Your task to perform on an android device: turn off location history Image 0: 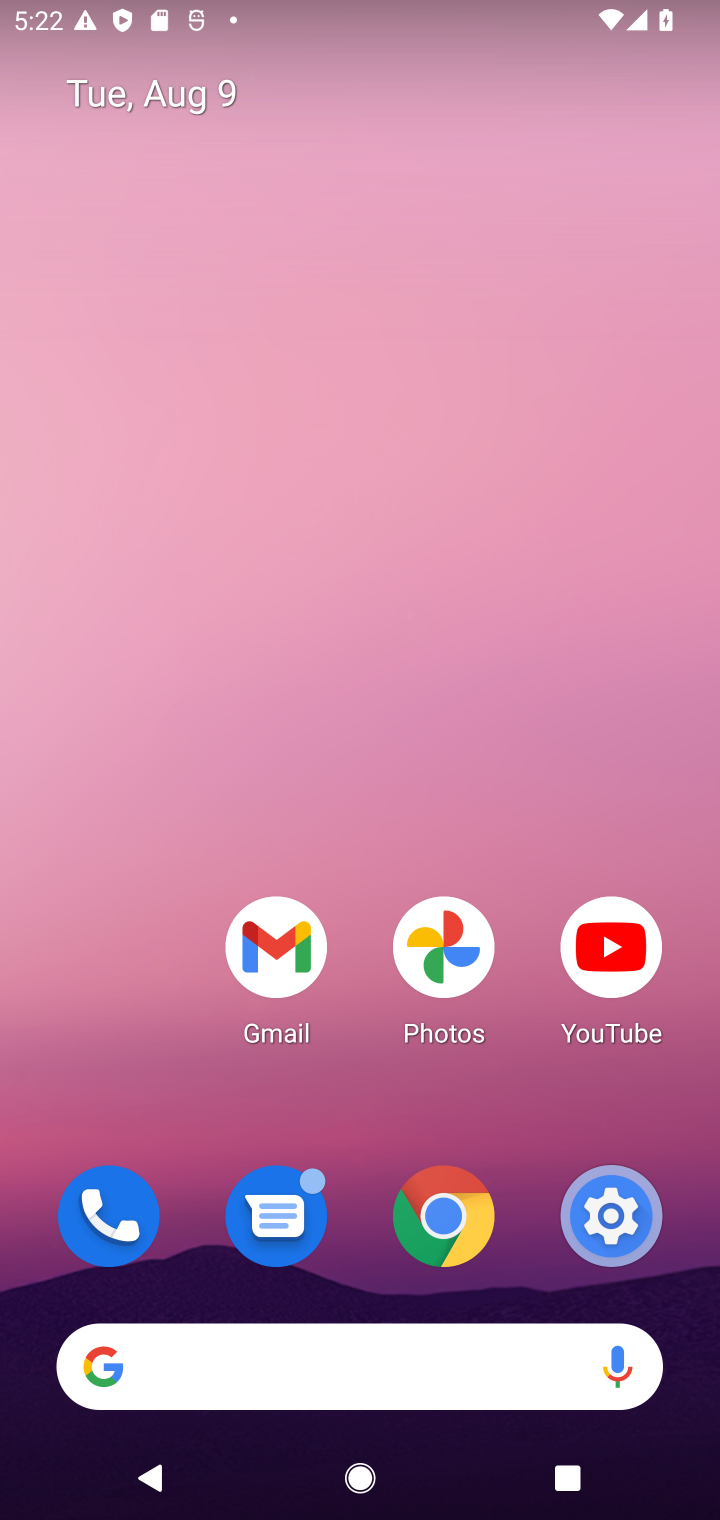
Step 0: click (616, 1233)
Your task to perform on an android device: turn off location history Image 1: 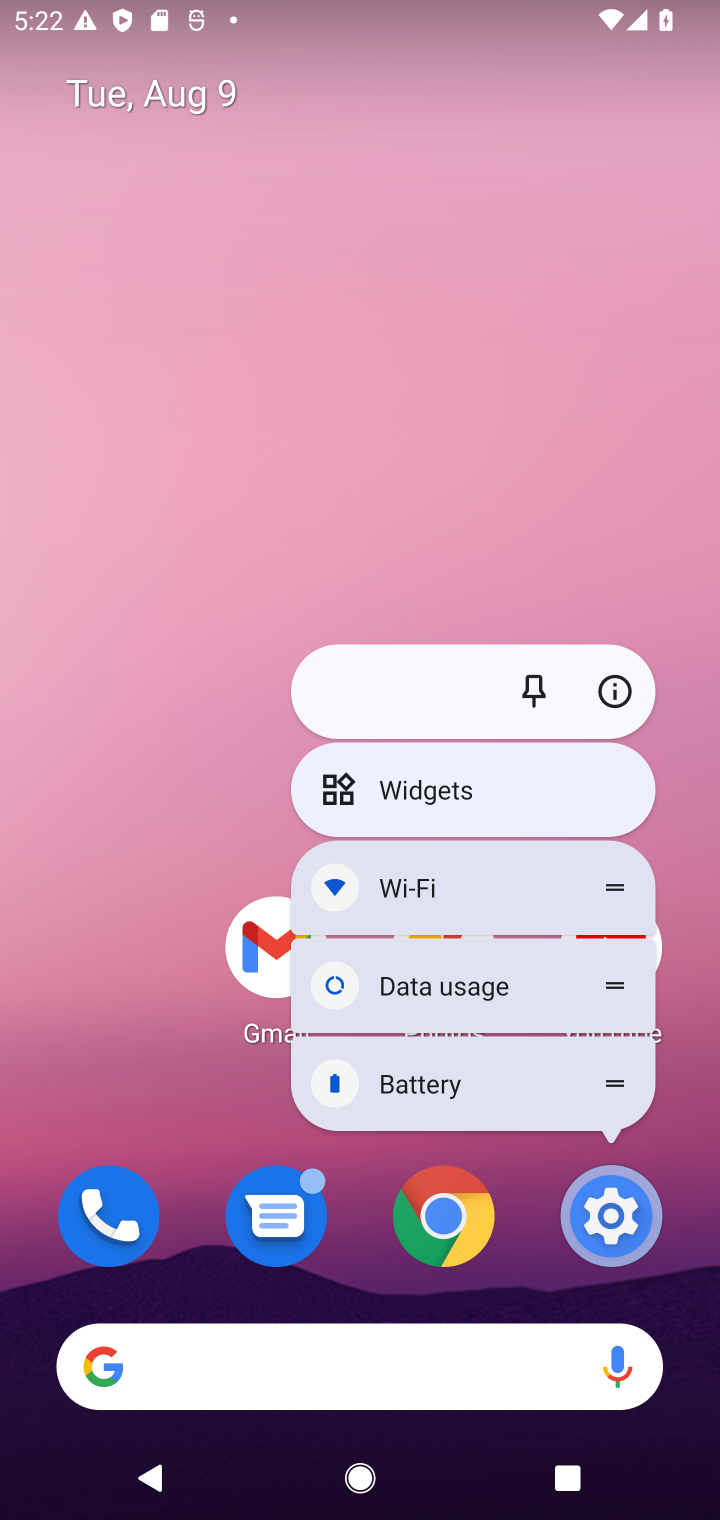
Step 1: click (616, 1233)
Your task to perform on an android device: turn off location history Image 2: 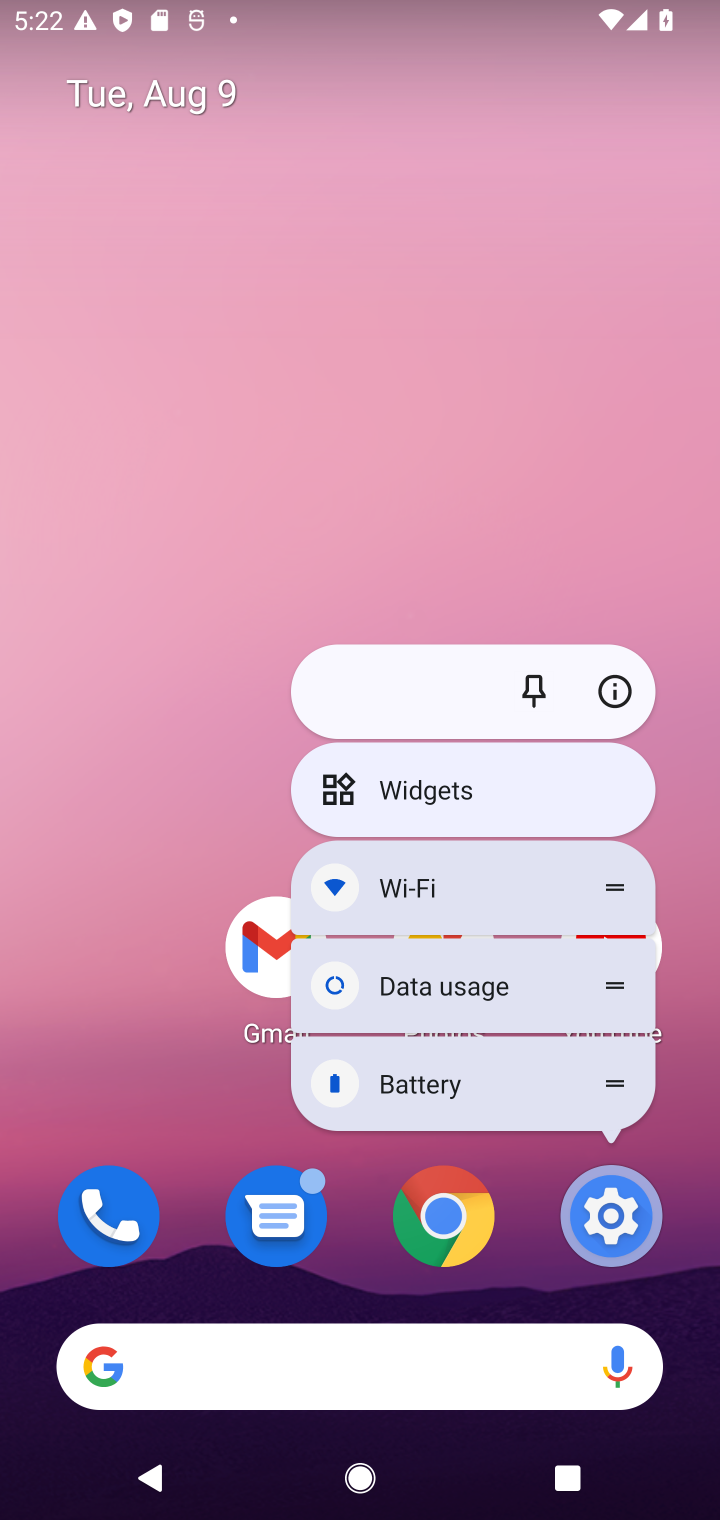
Step 2: click (594, 1220)
Your task to perform on an android device: turn off location history Image 3: 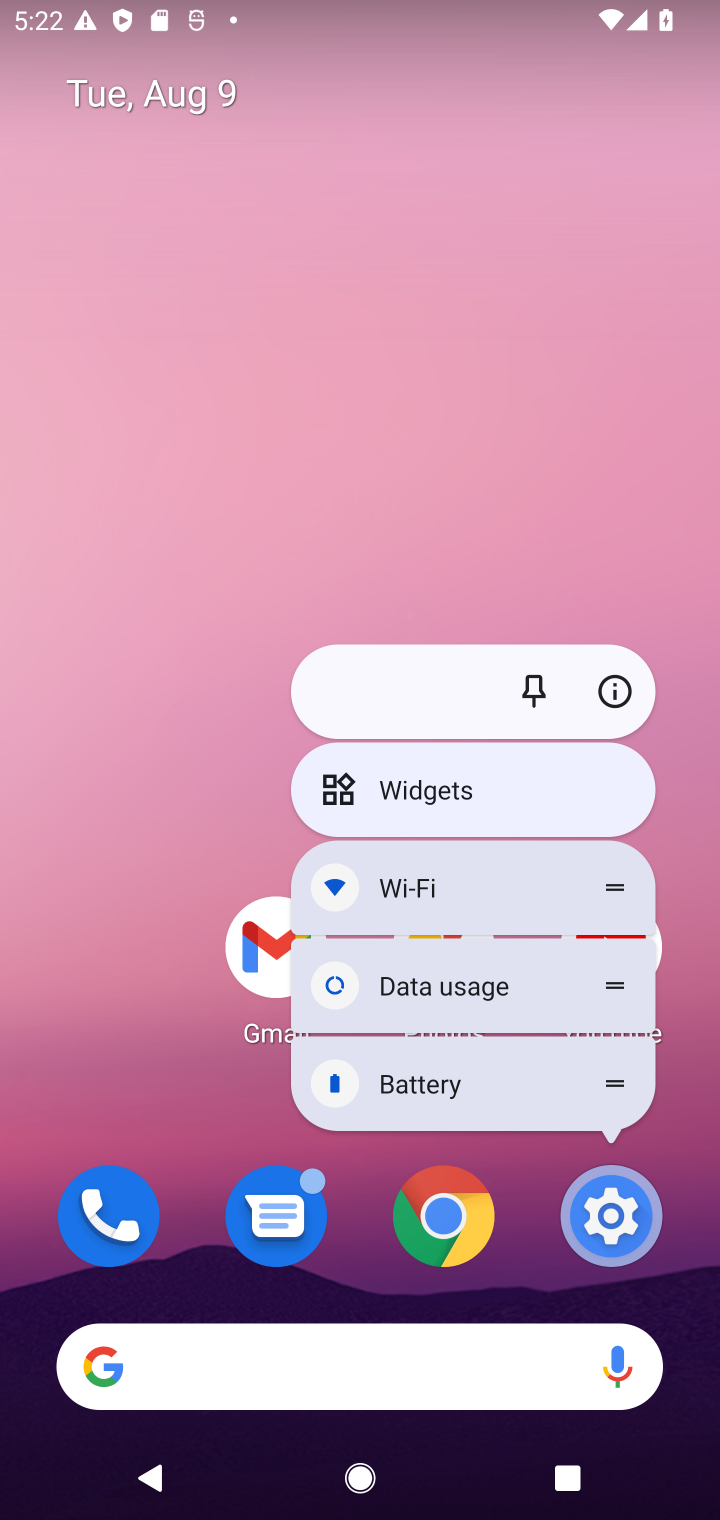
Step 3: click (624, 1219)
Your task to perform on an android device: turn off location history Image 4: 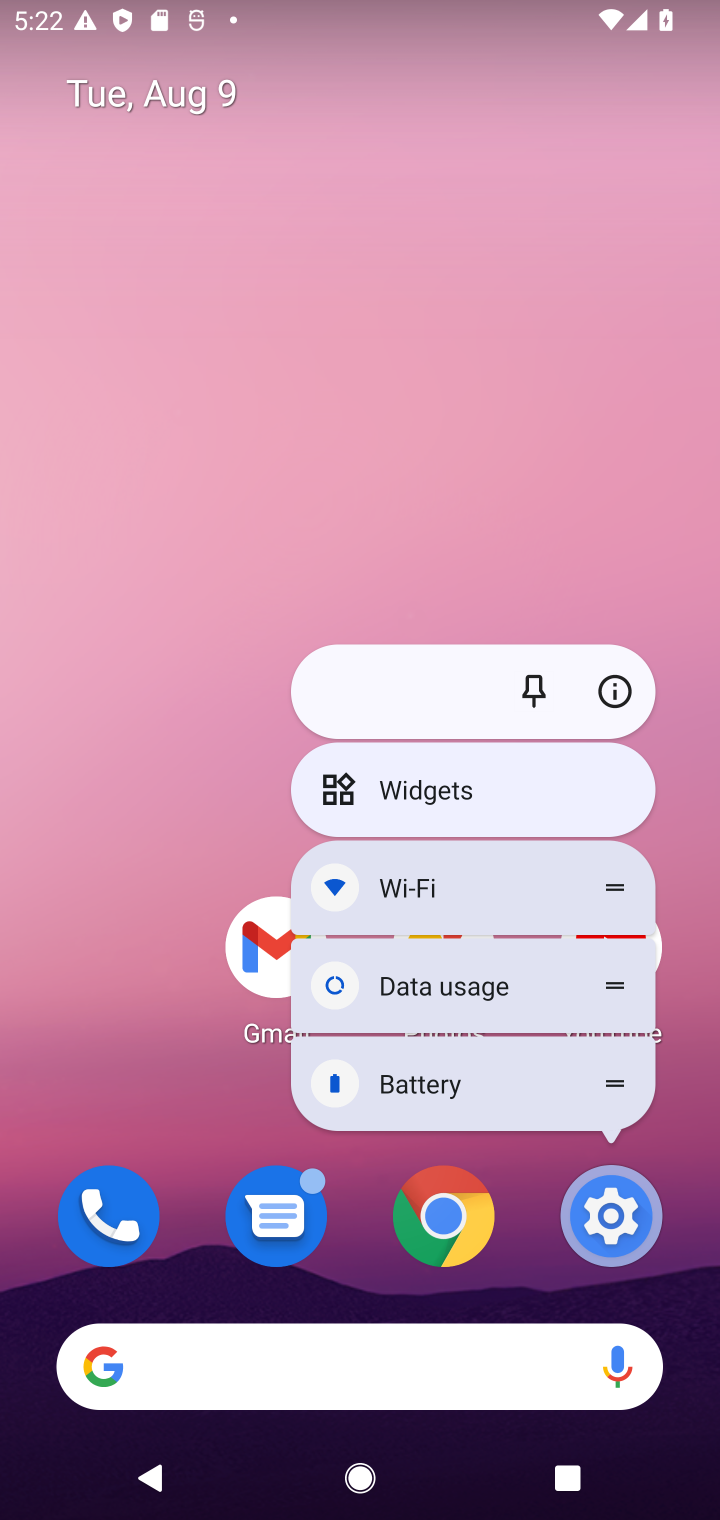
Step 4: click (637, 1241)
Your task to perform on an android device: turn off location history Image 5: 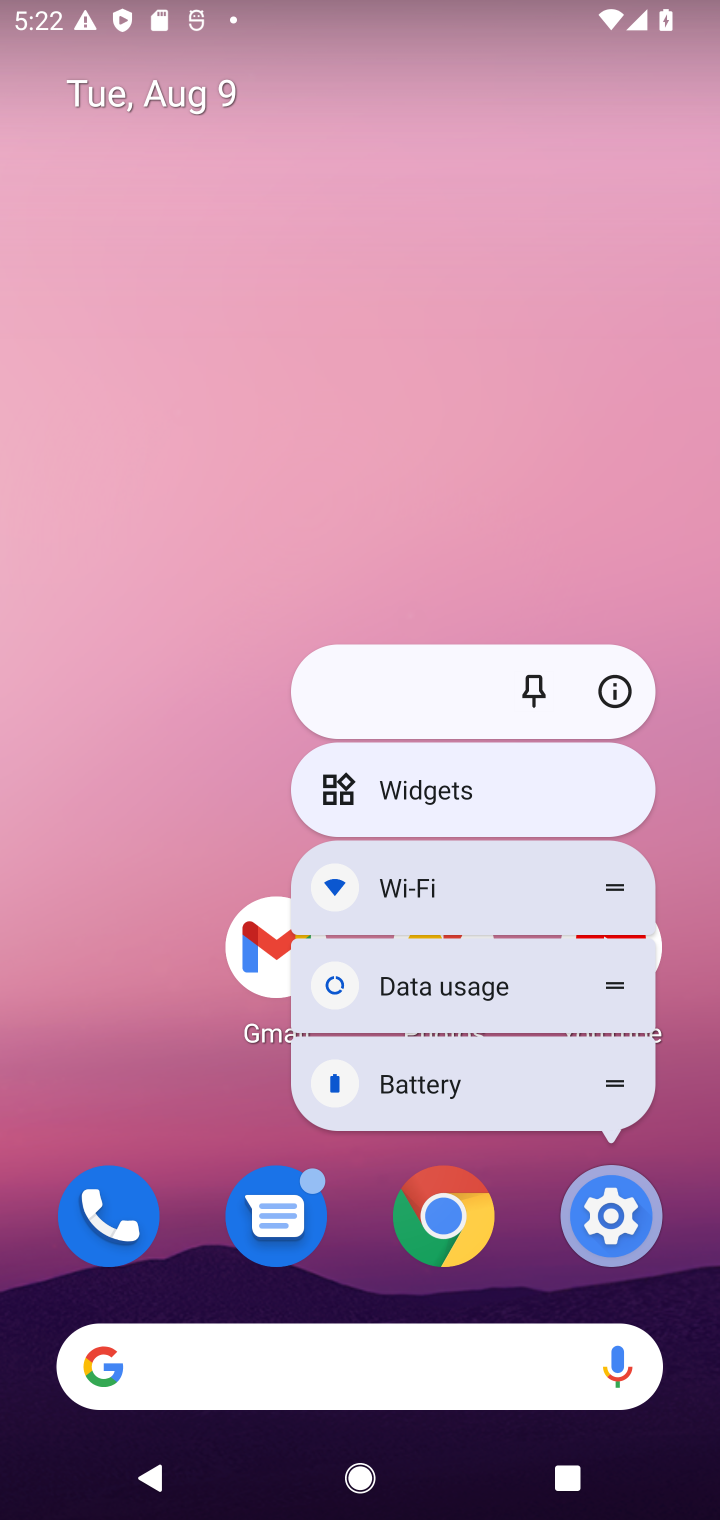
Step 5: click (619, 1224)
Your task to perform on an android device: turn off location history Image 6: 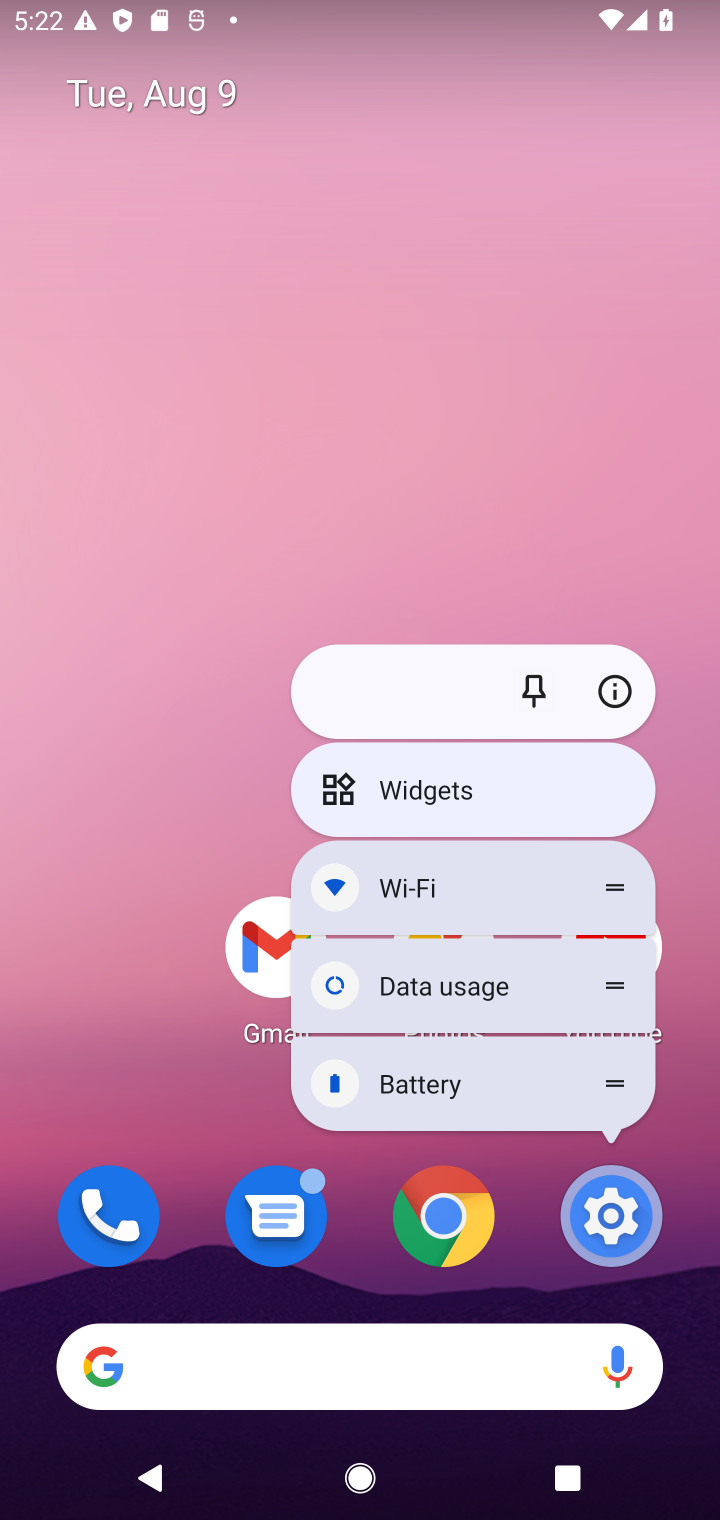
Step 6: click (589, 1194)
Your task to perform on an android device: turn off location history Image 7: 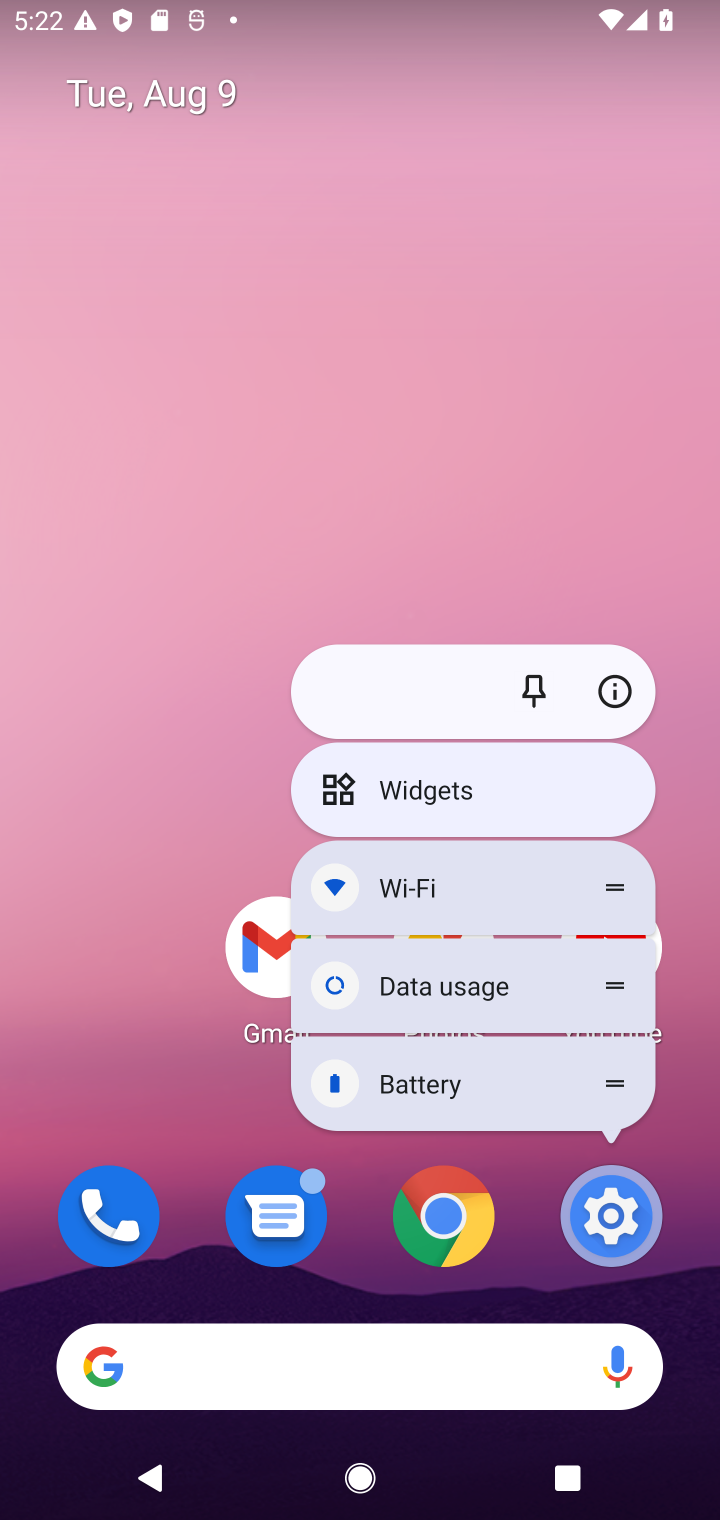
Step 7: click (596, 1203)
Your task to perform on an android device: turn off location history Image 8: 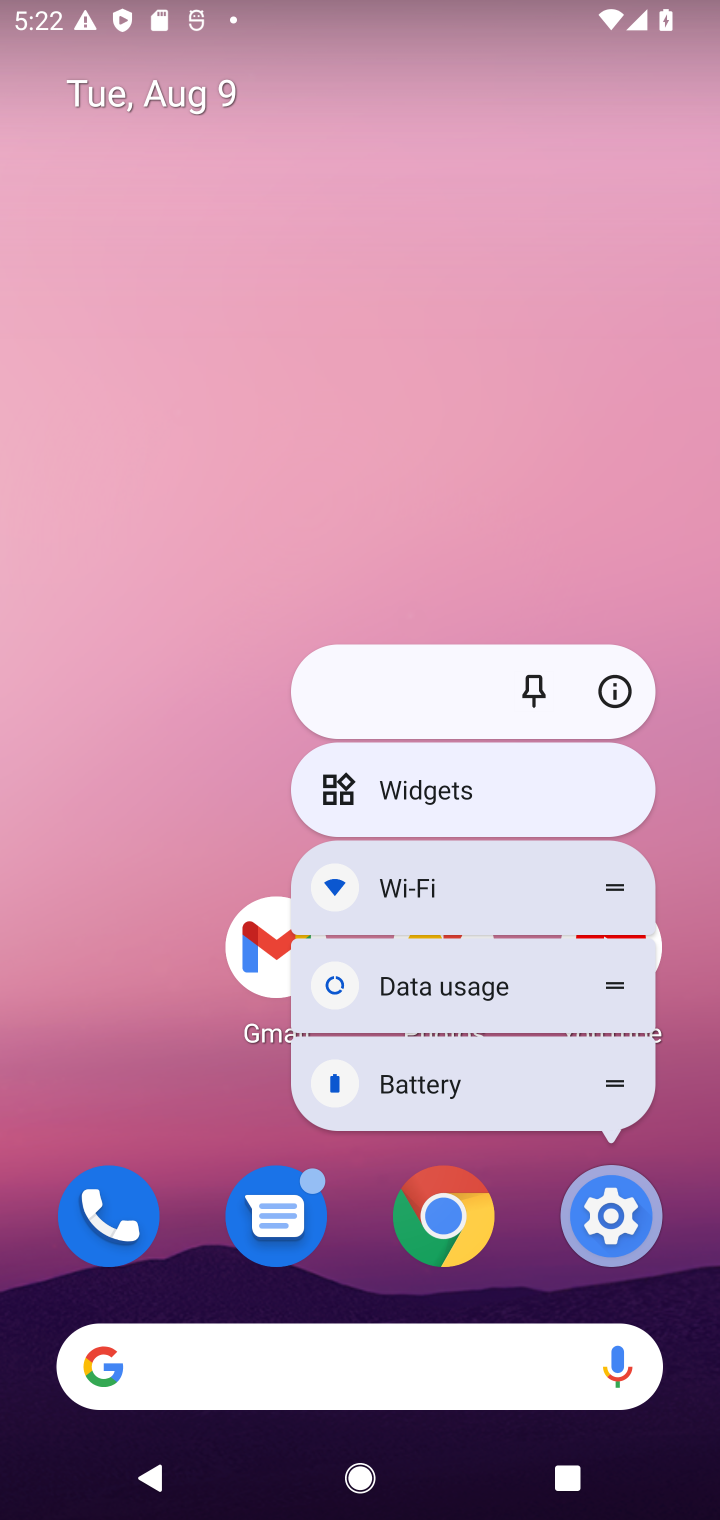
Step 8: click (619, 1235)
Your task to perform on an android device: turn off location history Image 9: 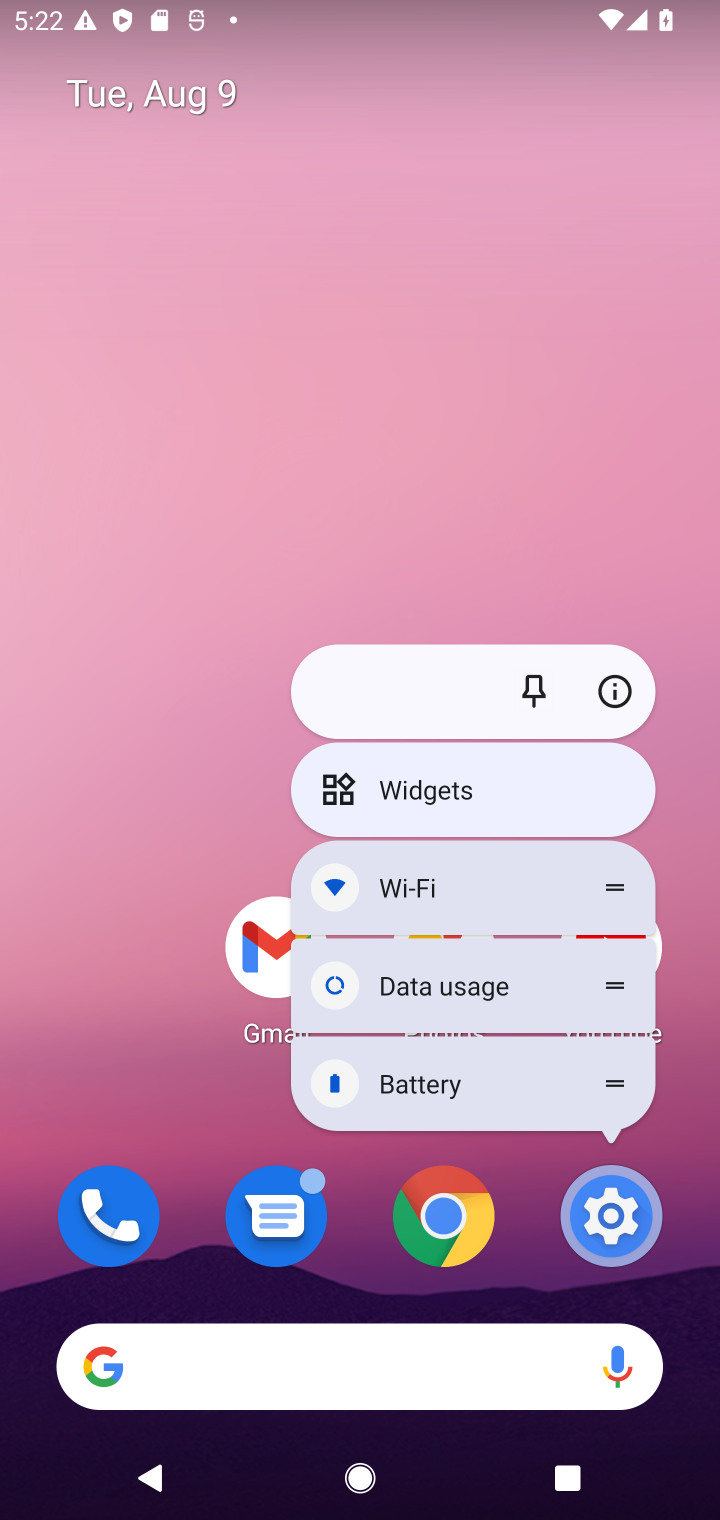
Step 9: click (619, 1235)
Your task to perform on an android device: turn off location history Image 10: 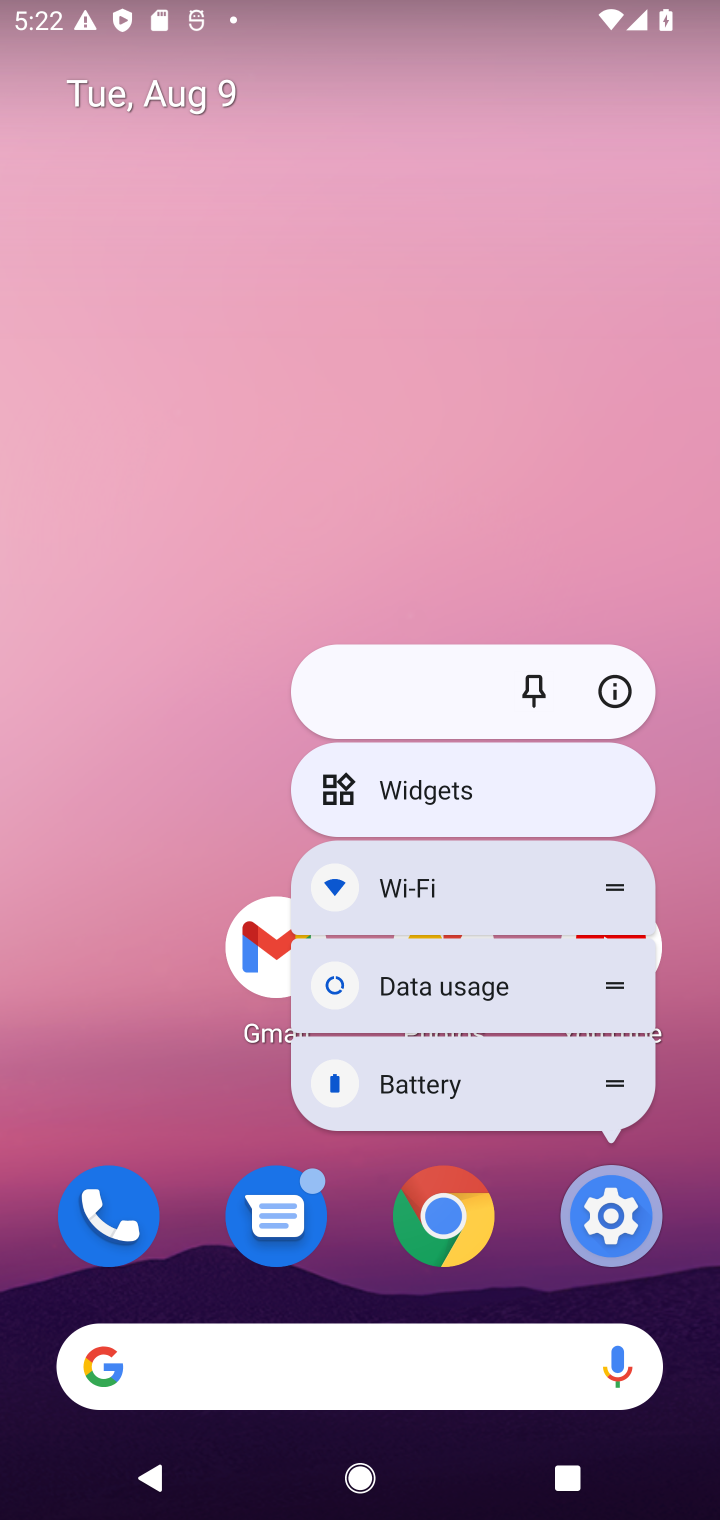
Step 10: click (596, 1220)
Your task to perform on an android device: turn off location history Image 11: 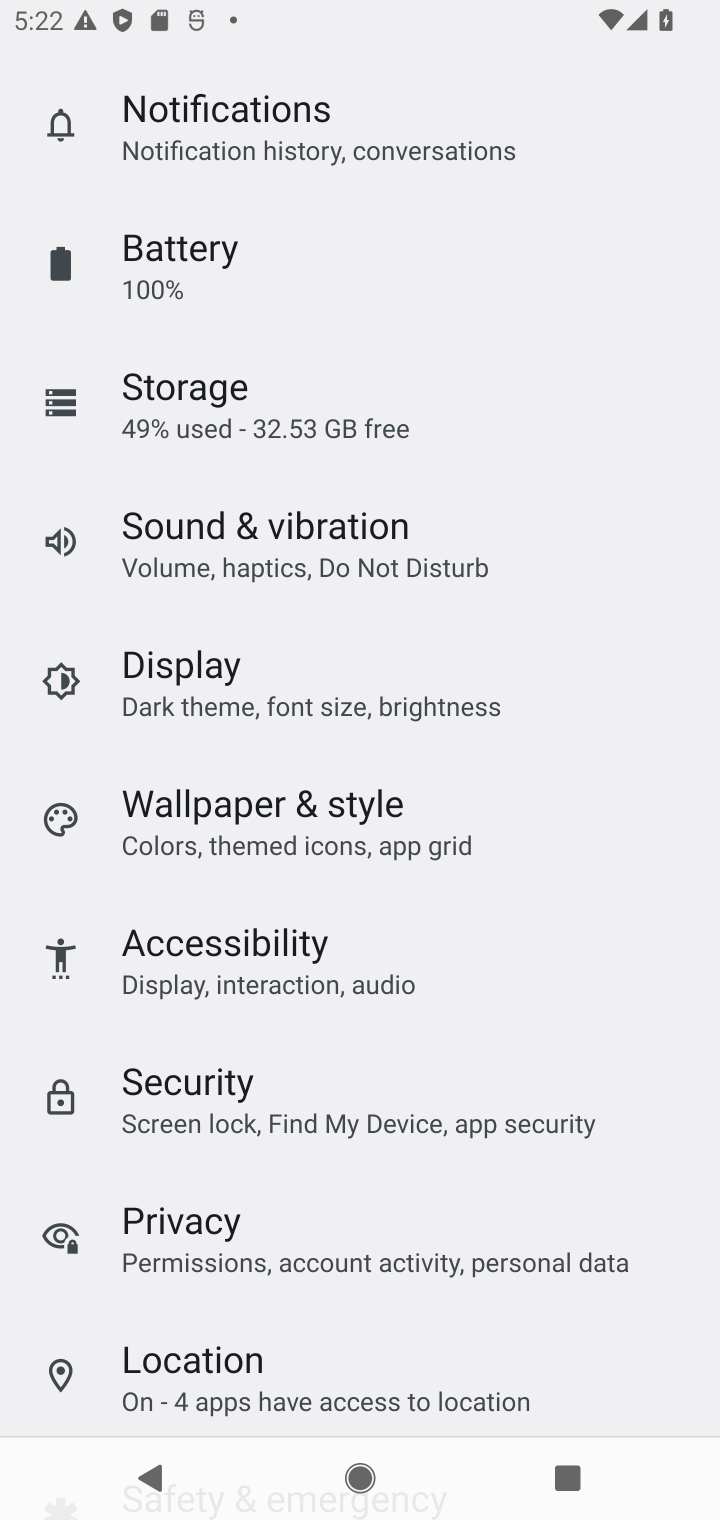
Step 11: click (252, 1387)
Your task to perform on an android device: turn off location history Image 12: 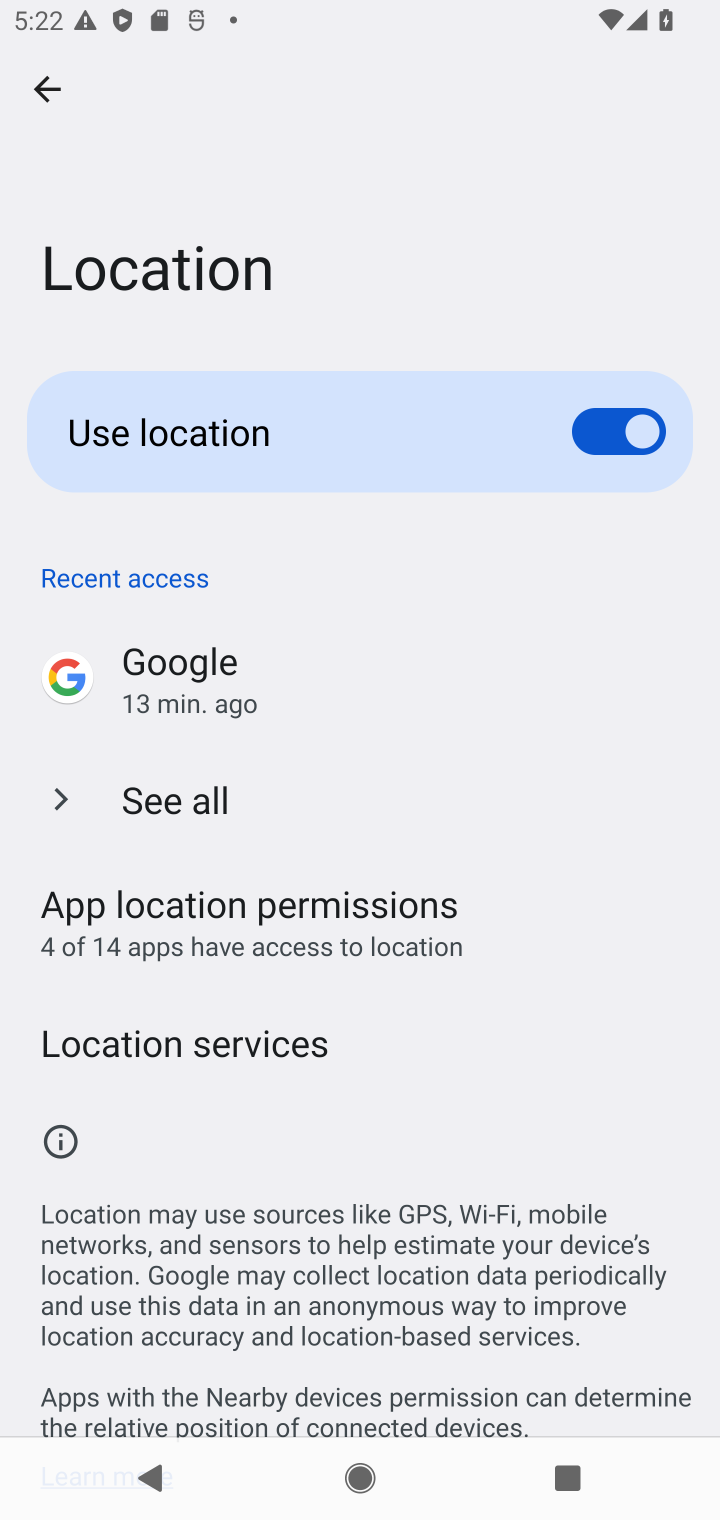
Step 12: click (223, 1042)
Your task to perform on an android device: turn off location history Image 13: 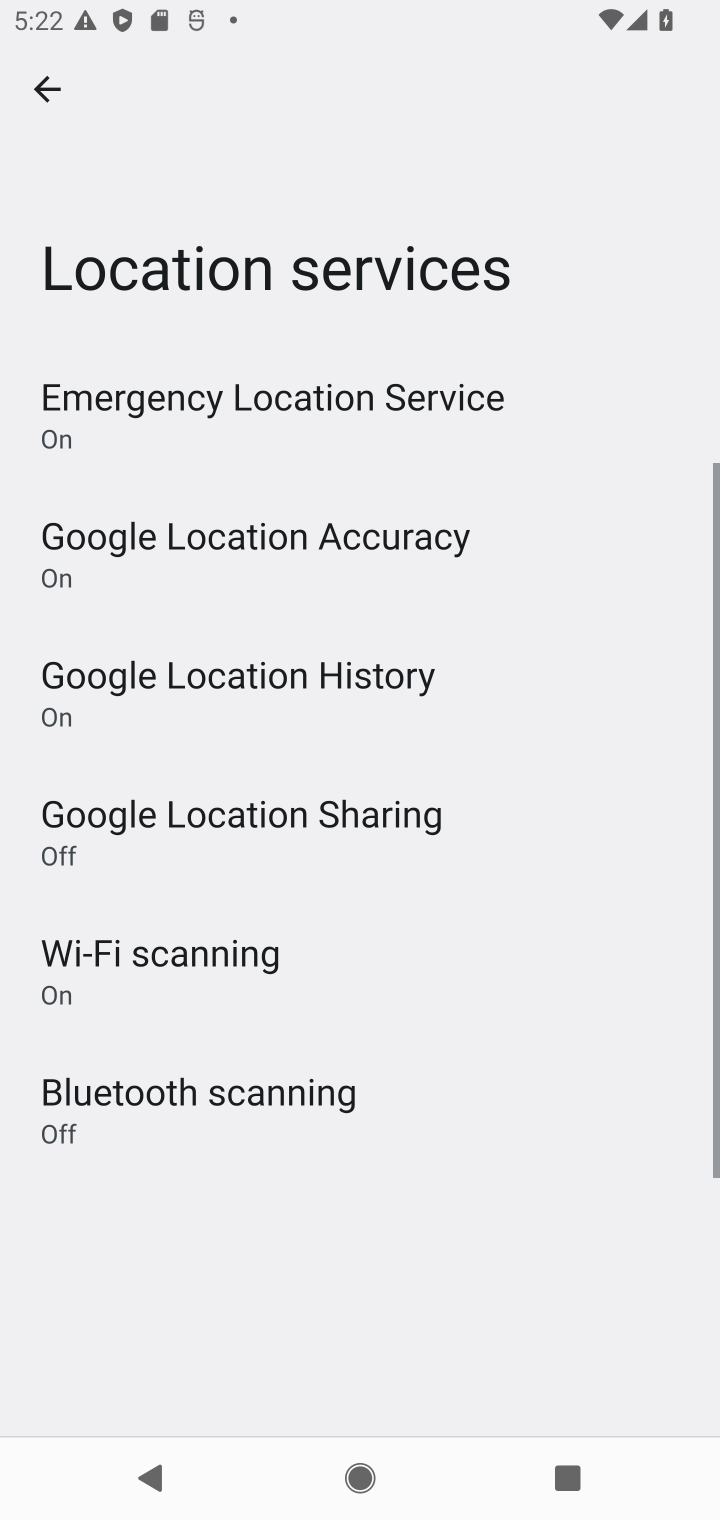
Step 13: click (182, 670)
Your task to perform on an android device: turn off location history Image 14: 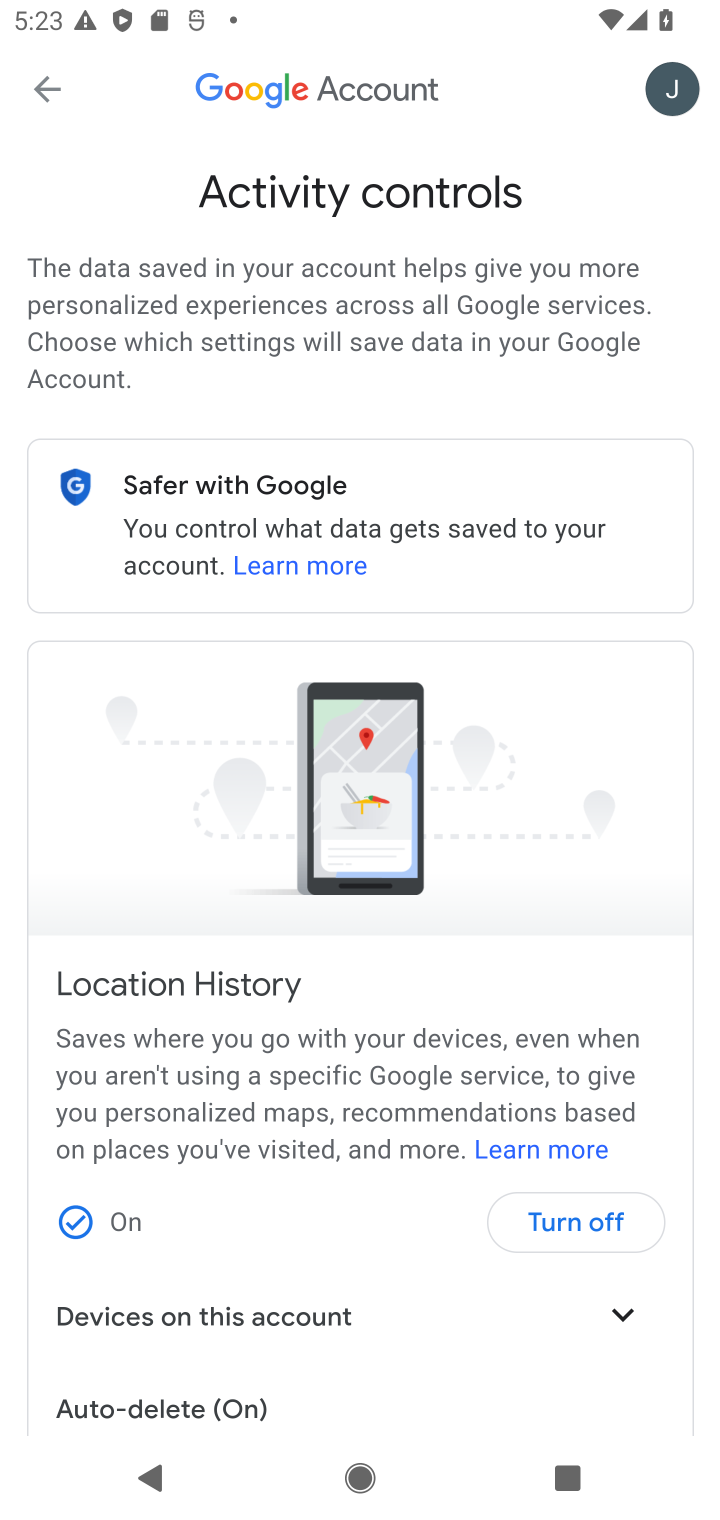
Step 14: click (540, 1220)
Your task to perform on an android device: turn off location history Image 15: 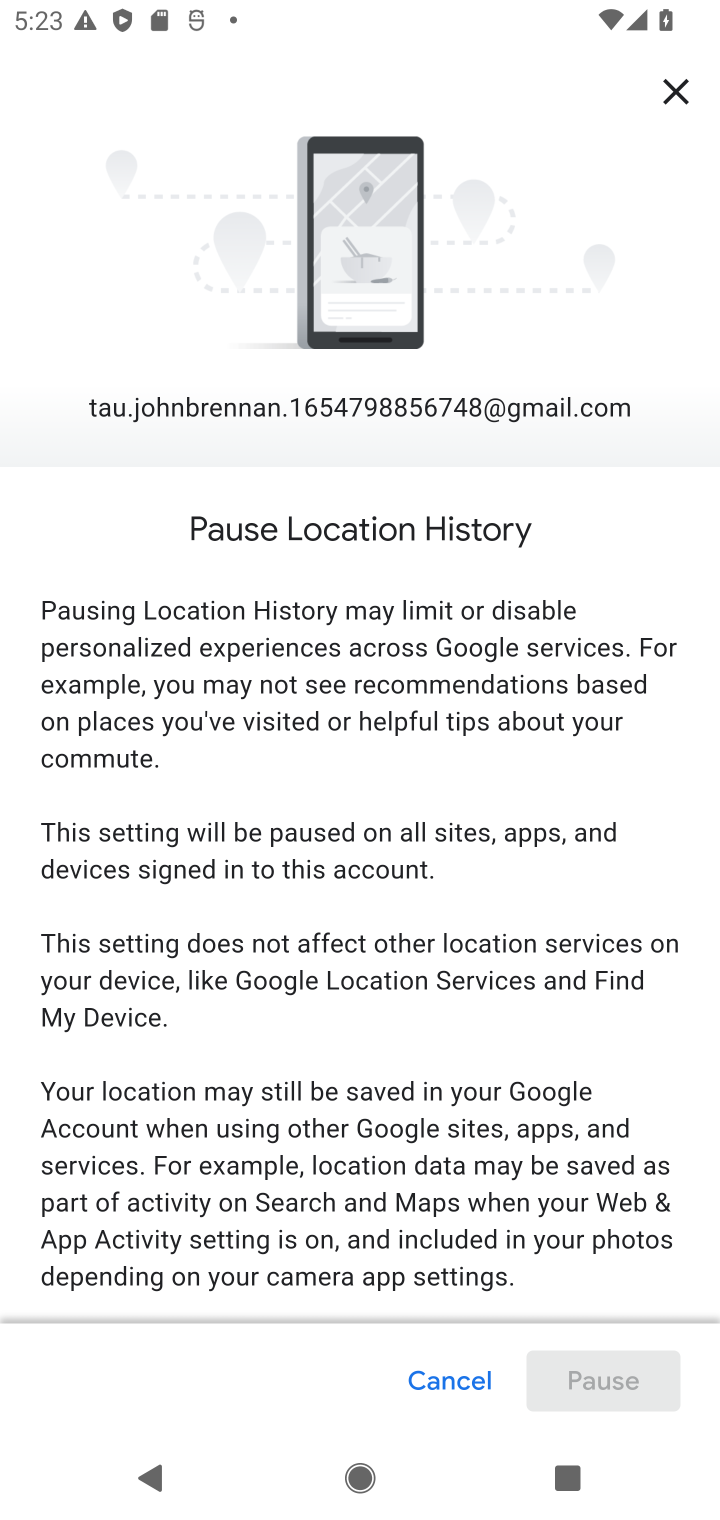
Step 15: drag from (548, 1258) to (442, 475)
Your task to perform on an android device: turn off location history Image 16: 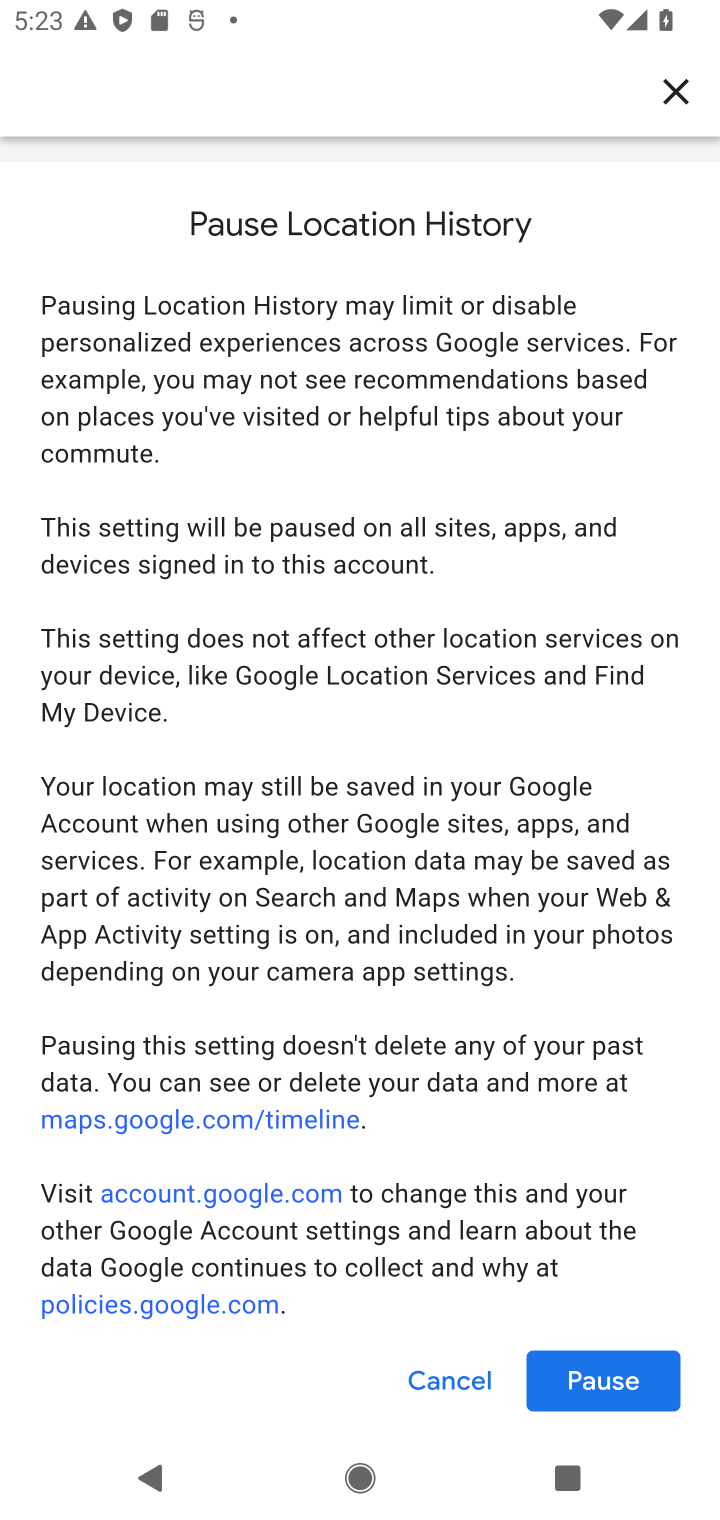
Step 16: click (601, 1389)
Your task to perform on an android device: turn off location history Image 17: 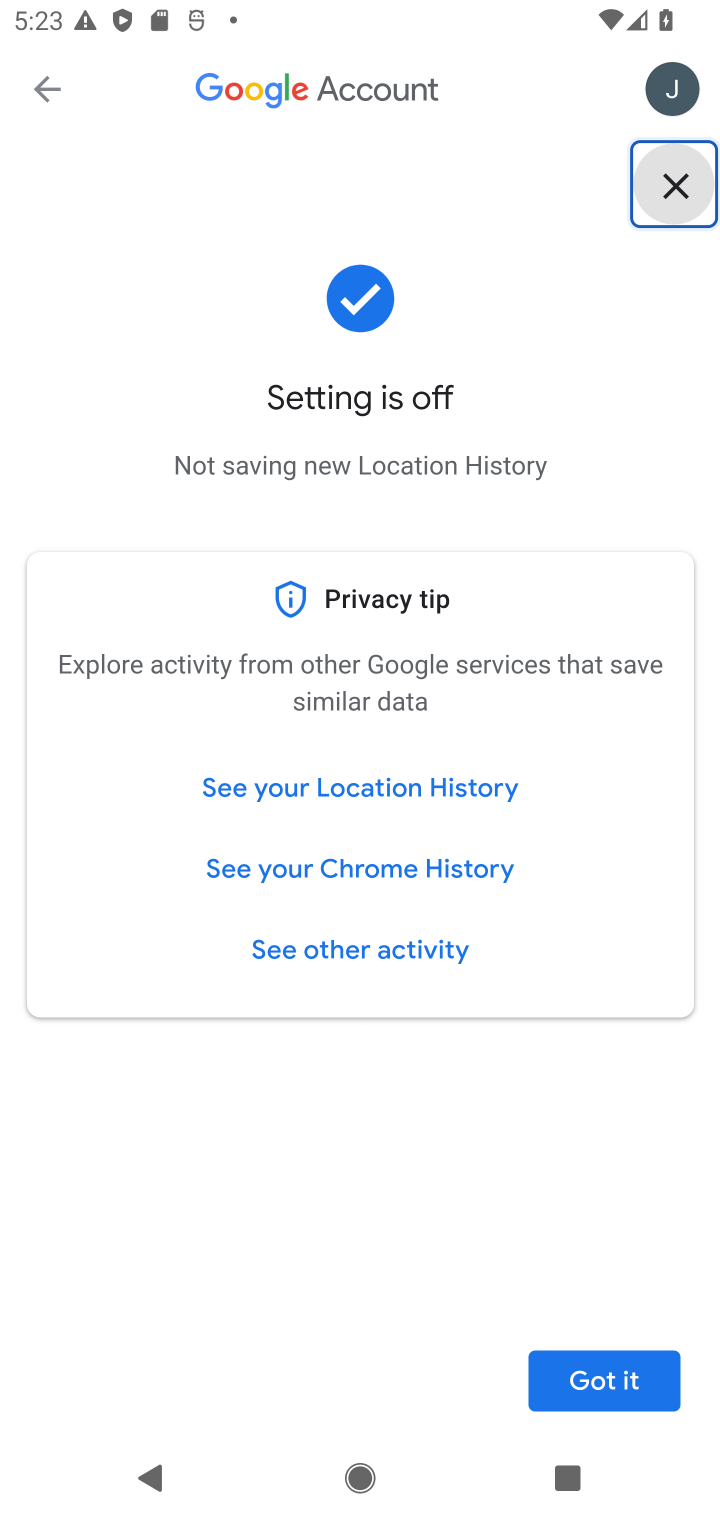
Step 17: click (601, 1389)
Your task to perform on an android device: turn off location history Image 18: 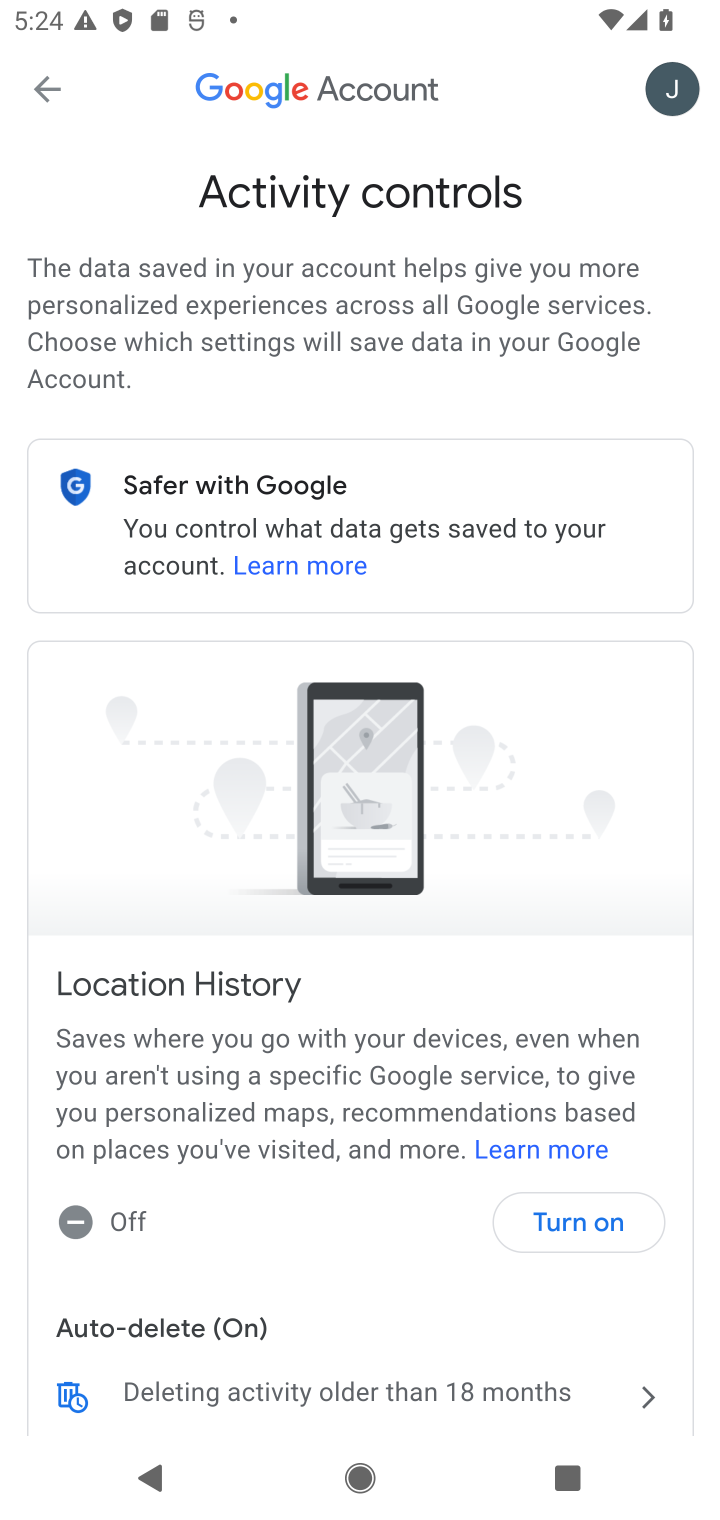
Step 18: task complete